Your task to perform on an android device: add a contact in the contacts app Image 0: 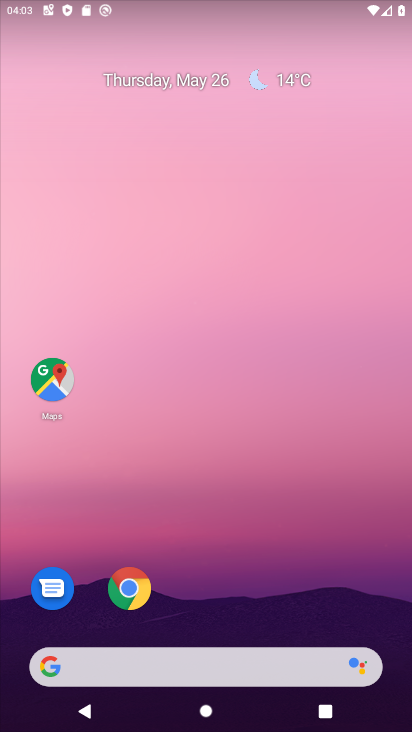
Step 0: drag from (239, 608) to (224, 141)
Your task to perform on an android device: add a contact in the contacts app Image 1: 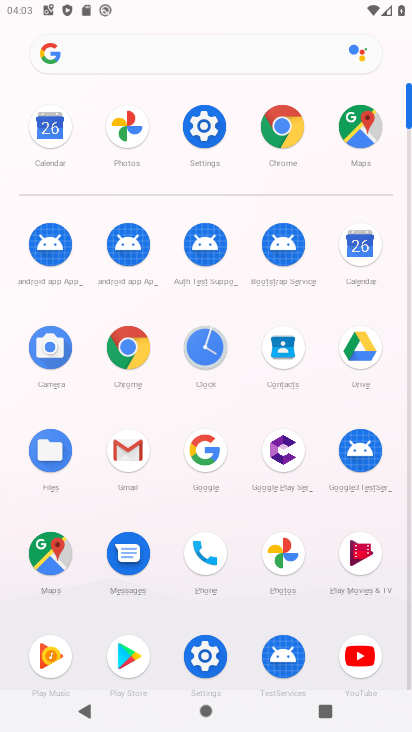
Step 1: click (282, 346)
Your task to perform on an android device: add a contact in the contacts app Image 2: 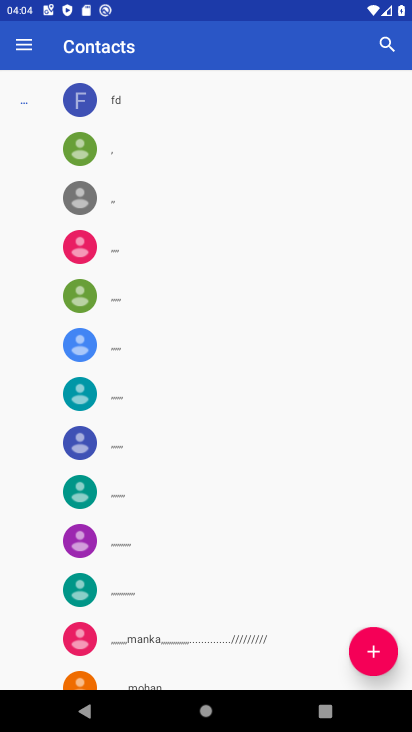
Step 2: click (371, 661)
Your task to perform on an android device: add a contact in the contacts app Image 3: 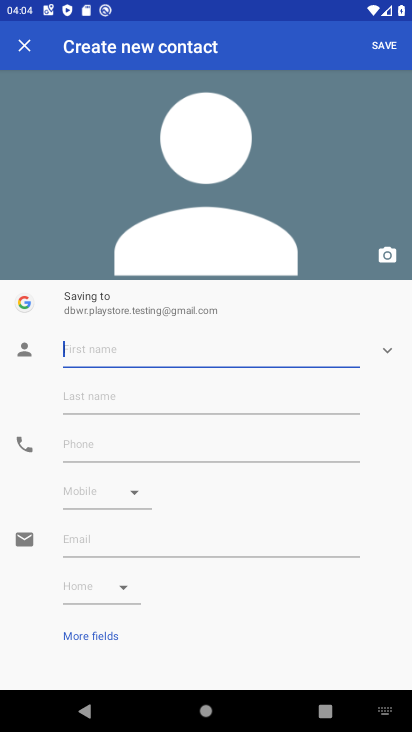
Step 3: type "x"
Your task to perform on an android device: add a contact in the contacts app Image 4: 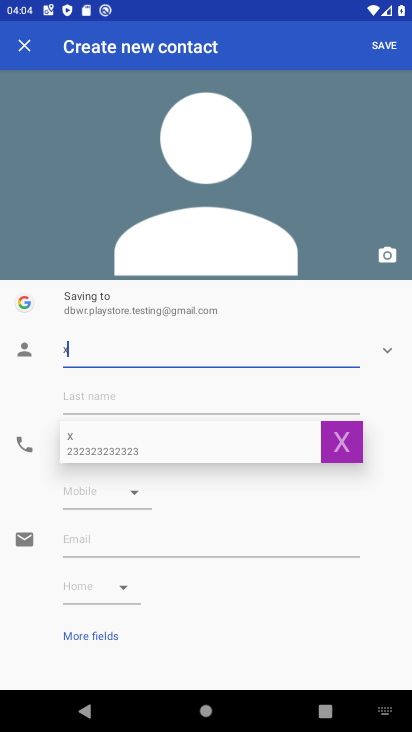
Step 4: type "acsacsadc"
Your task to perform on an android device: add a contact in the contacts app Image 5: 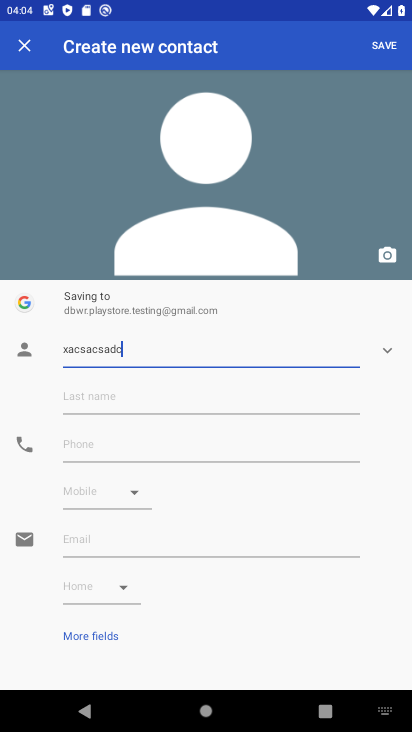
Step 5: click (372, 36)
Your task to perform on an android device: add a contact in the contacts app Image 6: 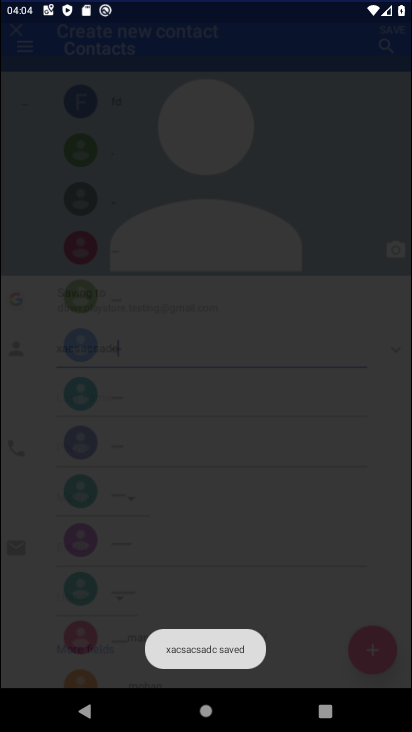
Step 6: task complete